Your task to perform on an android device: add a contact Image 0: 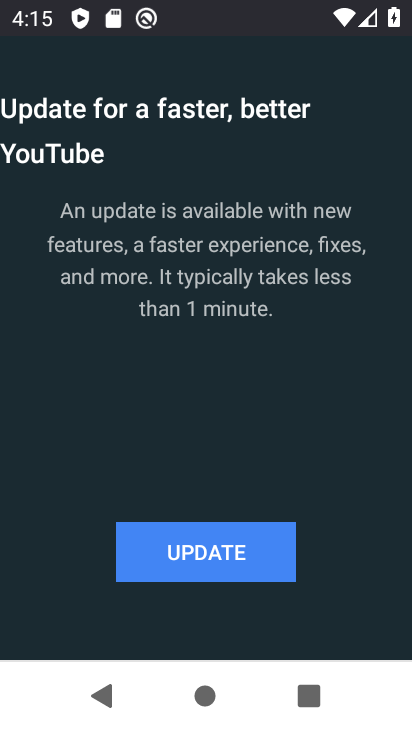
Step 0: press home button
Your task to perform on an android device: add a contact Image 1: 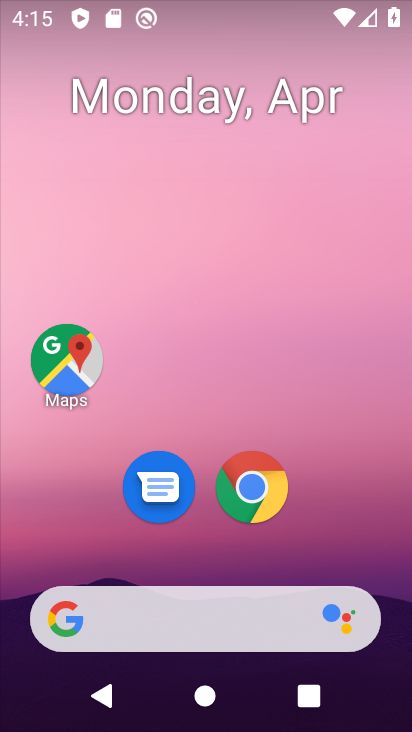
Step 1: drag from (367, 548) to (386, 176)
Your task to perform on an android device: add a contact Image 2: 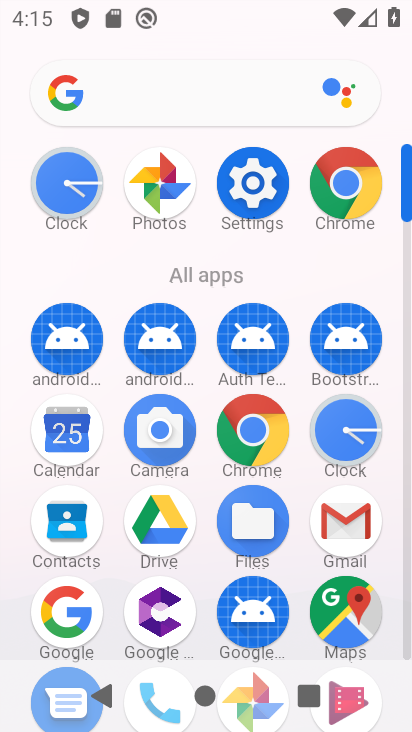
Step 2: click (82, 538)
Your task to perform on an android device: add a contact Image 3: 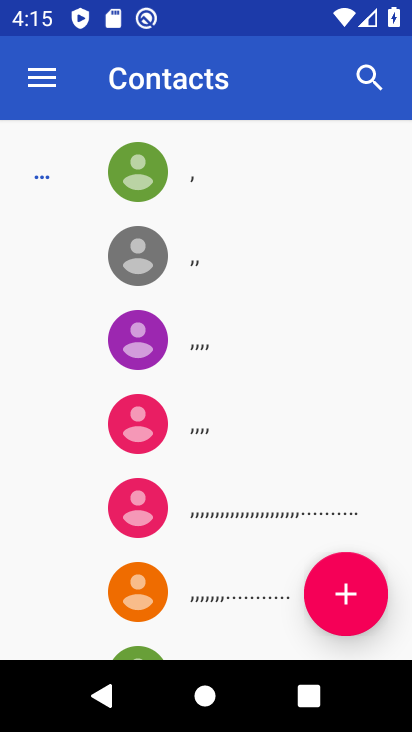
Step 3: click (329, 591)
Your task to perform on an android device: add a contact Image 4: 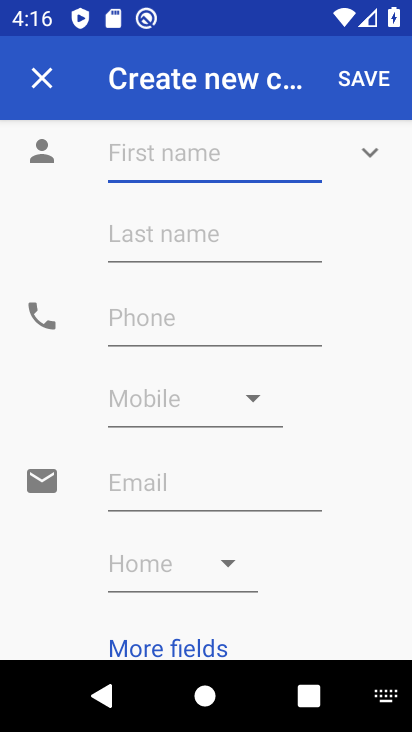
Step 4: type "love one "
Your task to perform on an android device: add a contact Image 5: 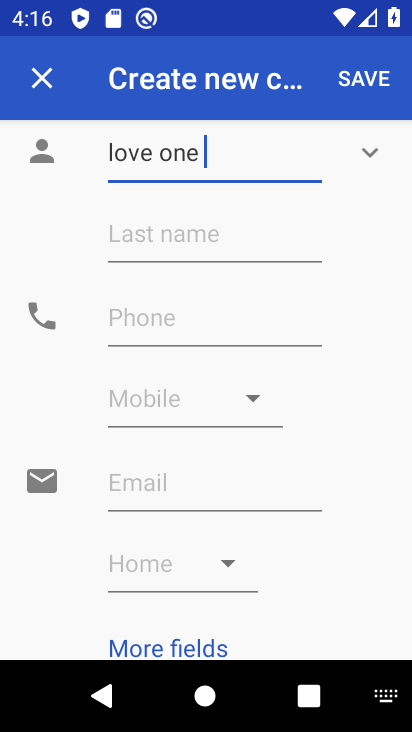
Step 5: click (252, 323)
Your task to perform on an android device: add a contact Image 6: 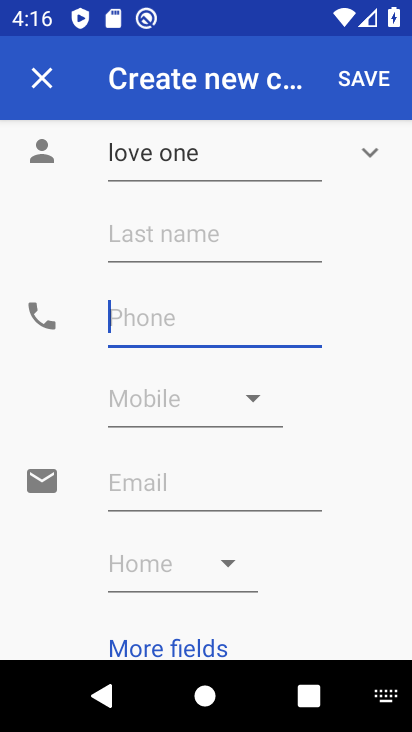
Step 6: type "1234567890"
Your task to perform on an android device: add a contact Image 7: 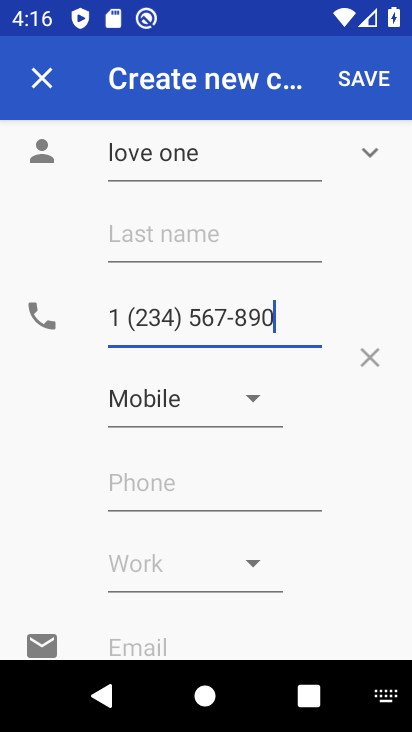
Step 7: click (380, 93)
Your task to perform on an android device: add a contact Image 8: 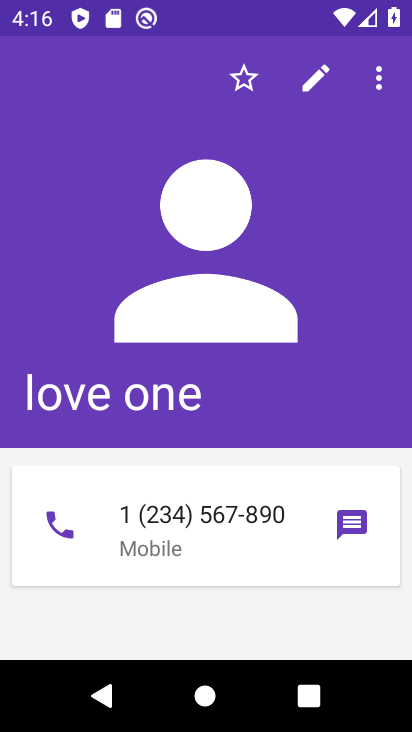
Step 8: task complete